Your task to perform on an android device: Open Google Image 0: 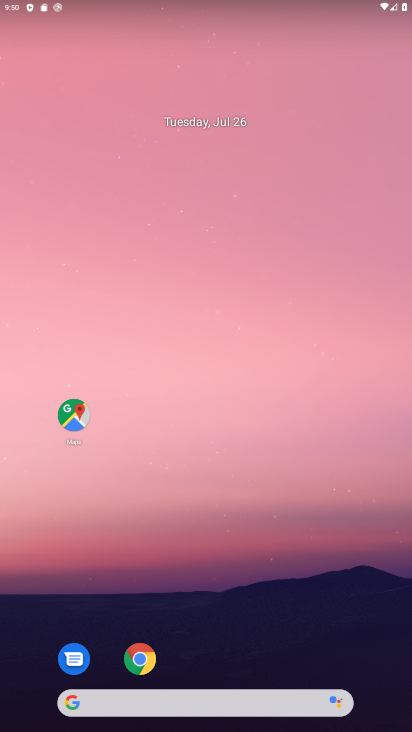
Step 0: drag from (382, 691) to (341, 38)
Your task to perform on an android device: Open Google Image 1: 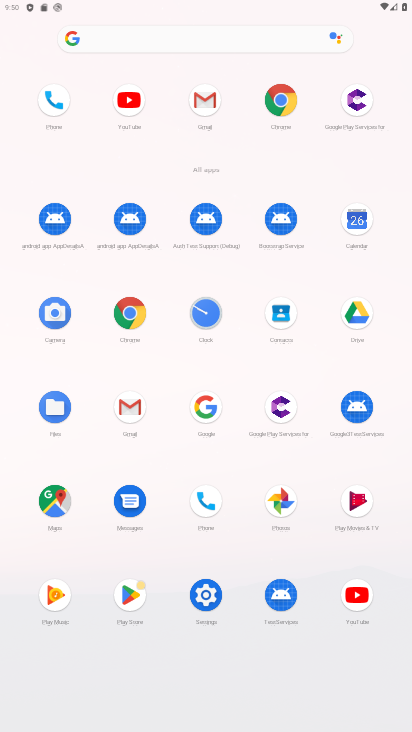
Step 1: click (208, 403)
Your task to perform on an android device: Open Google Image 2: 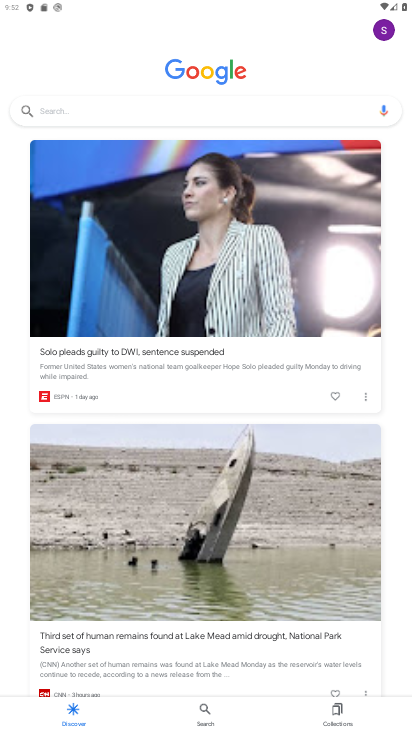
Step 2: task complete